Your task to perform on an android device: toggle show notifications on the lock screen Image 0: 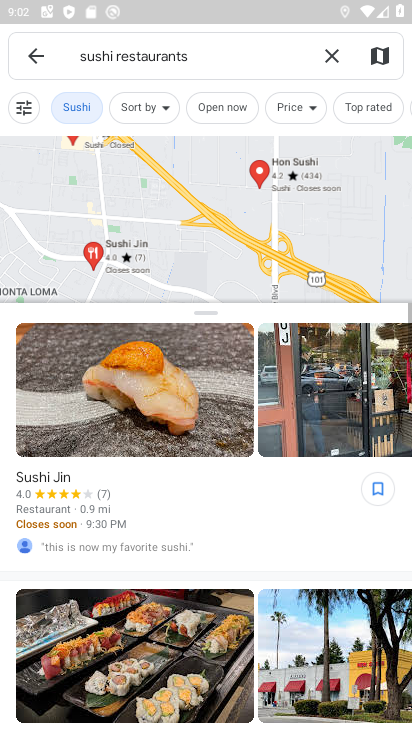
Step 0: press home button
Your task to perform on an android device: toggle show notifications on the lock screen Image 1: 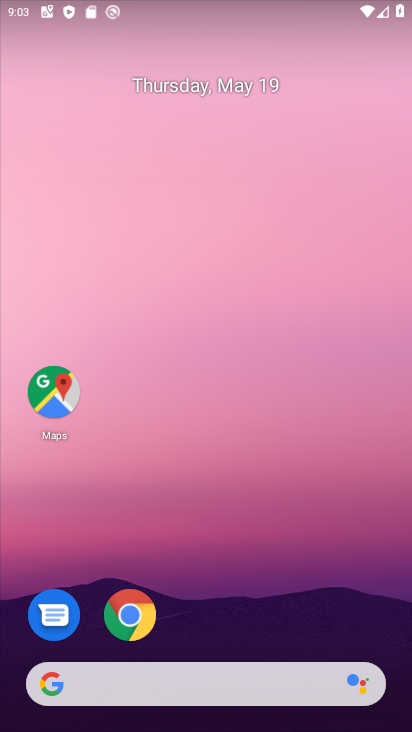
Step 1: drag from (291, 624) to (266, 75)
Your task to perform on an android device: toggle show notifications on the lock screen Image 2: 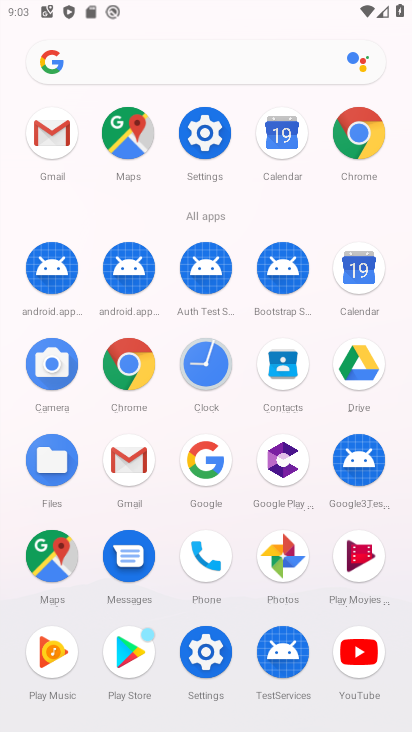
Step 2: click (187, 659)
Your task to perform on an android device: toggle show notifications on the lock screen Image 3: 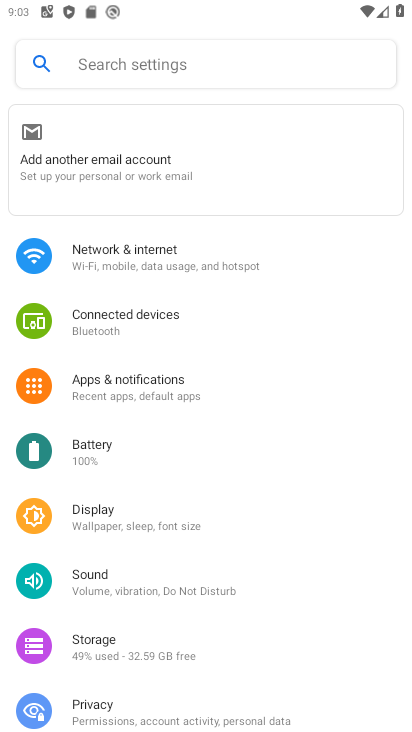
Step 3: click (111, 385)
Your task to perform on an android device: toggle show notifications on the lock screen Image 4: 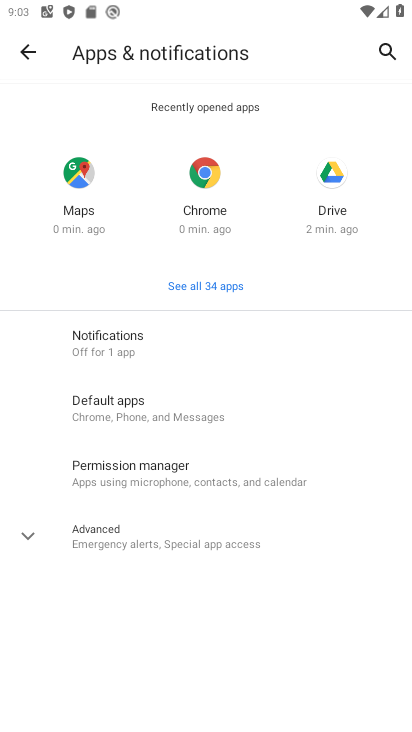
Step 4: click (128, 318)
Your task to perform on an android device: toggle show notifications on the lock screen Image 5: 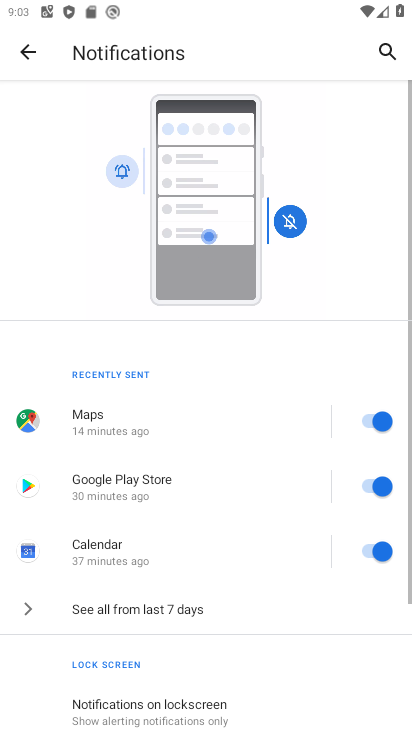
Step 5: drag from (134, 595) to (189, 75)
Your task to perform on an android device: toggle show notifications on the lock screen Image 6: 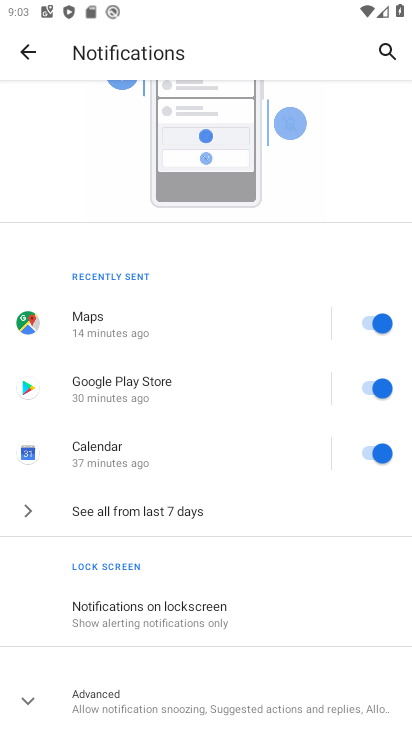
Step 6: click (158, 621)
Your task to perform on an android device: toggle show notifications on the lock screen Image 7: 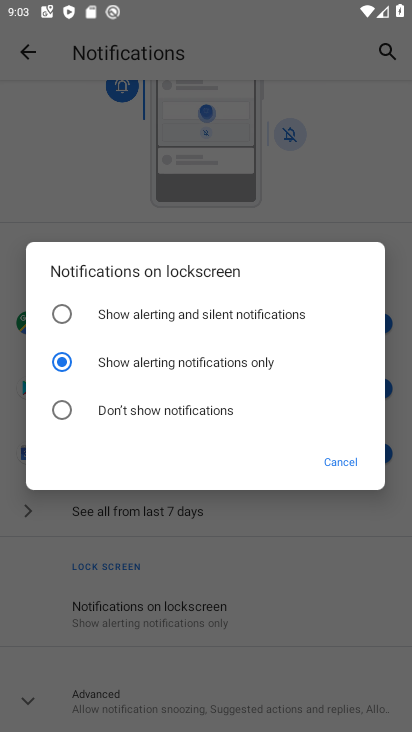
Step 7: click (167, 324)
Your task to perform on an android device: toggle show notifications on the lock screen Image 8: 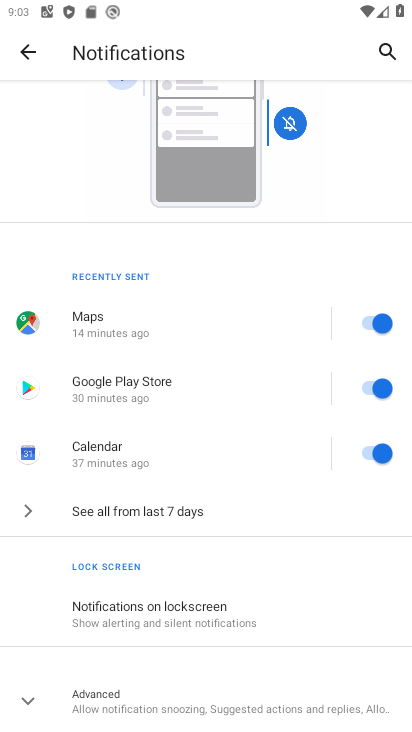
Step 8: task complete